Your task to perform on an android device: see sites visited before in the chrome app Image 0: 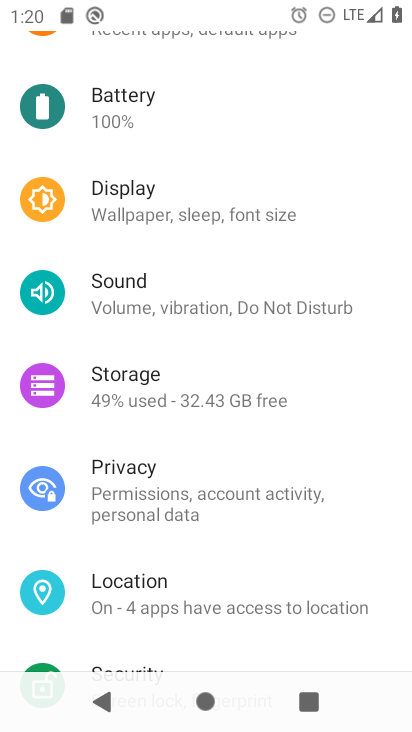
Step 0: press home button
Your task to perform on an android device: see sites visited before in the chrome app Image 1: 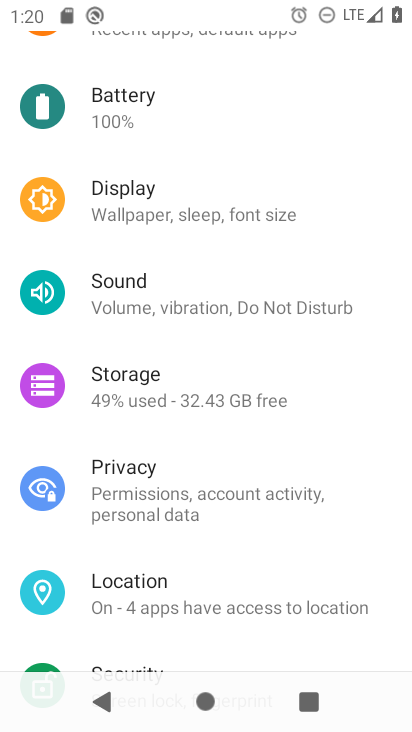
Step 1: press home button
Your task to perform on an android device: see sites visited before in the chrome app Image 2: 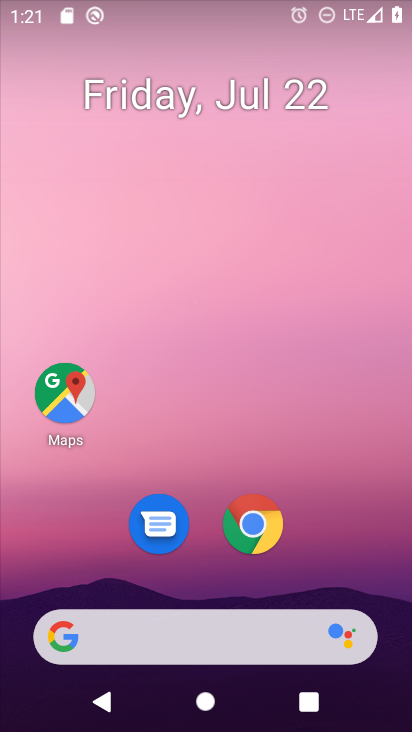
Step 2: click (262, 547)
Your task to perform on an android device: see sites visited before in the chrome app Image 3: 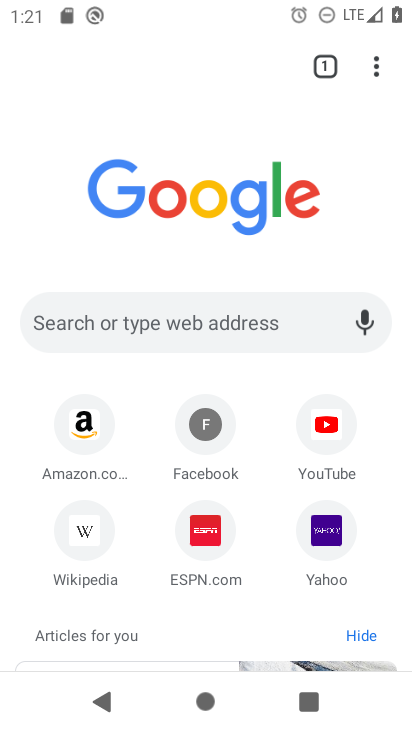
Step 3: click (373, 69)
Your task to perform on an android device: see sites visited before in the chrome app Image 4: 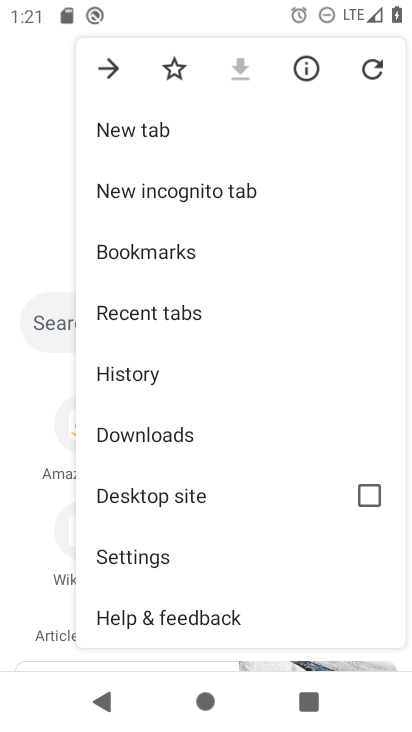
Step 4: click (179, 310)
Your task to perform on an android device: see sites visited before in the chrome app Image 5: 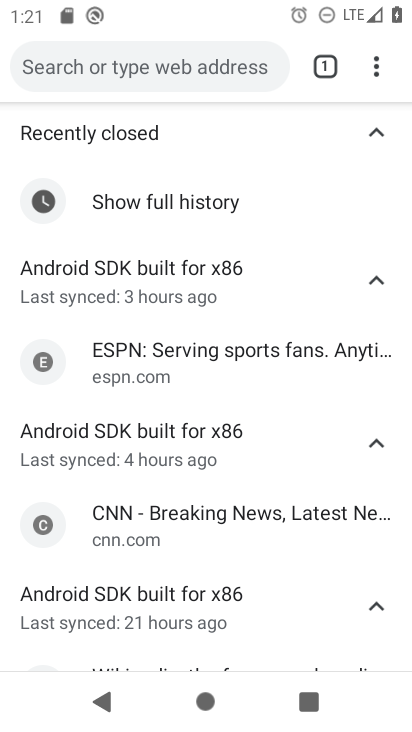
Step 5: task complete